Your task to perform on an android device: Open notification settings Image 0: 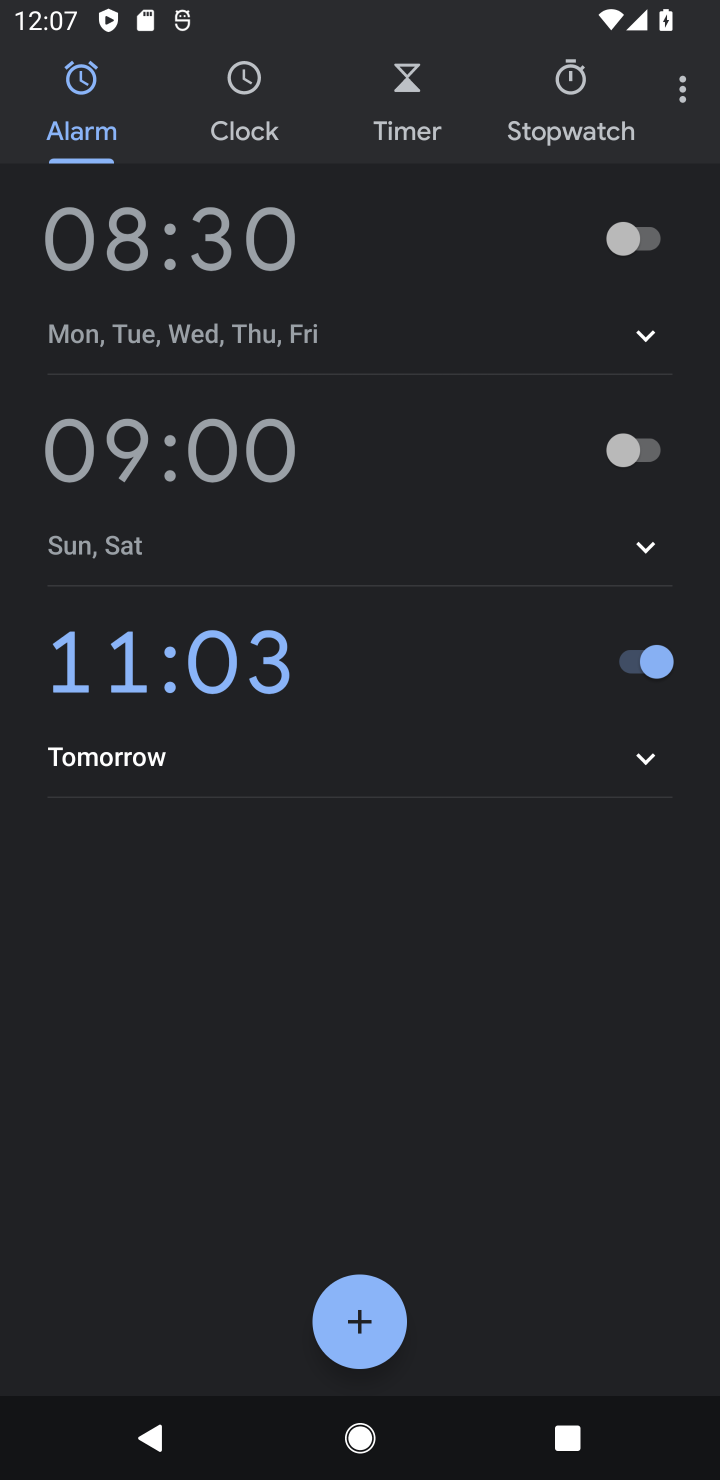
Step 0: press home button
Your task to perform on an android device: Open notification settings Image 1: 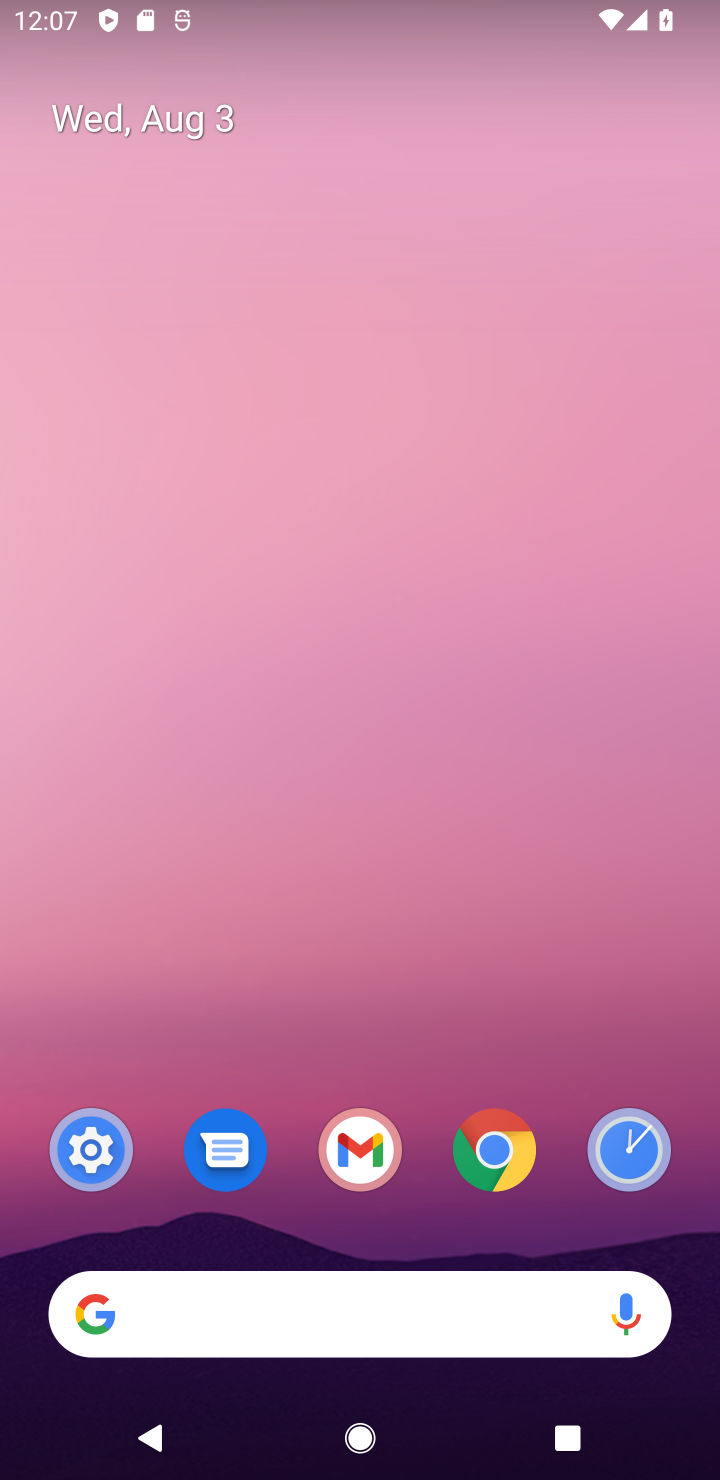
Step 1: drag from (530, 1007) to (536, 321)
Your task to perform on an android device: Open notification settings Image 2: 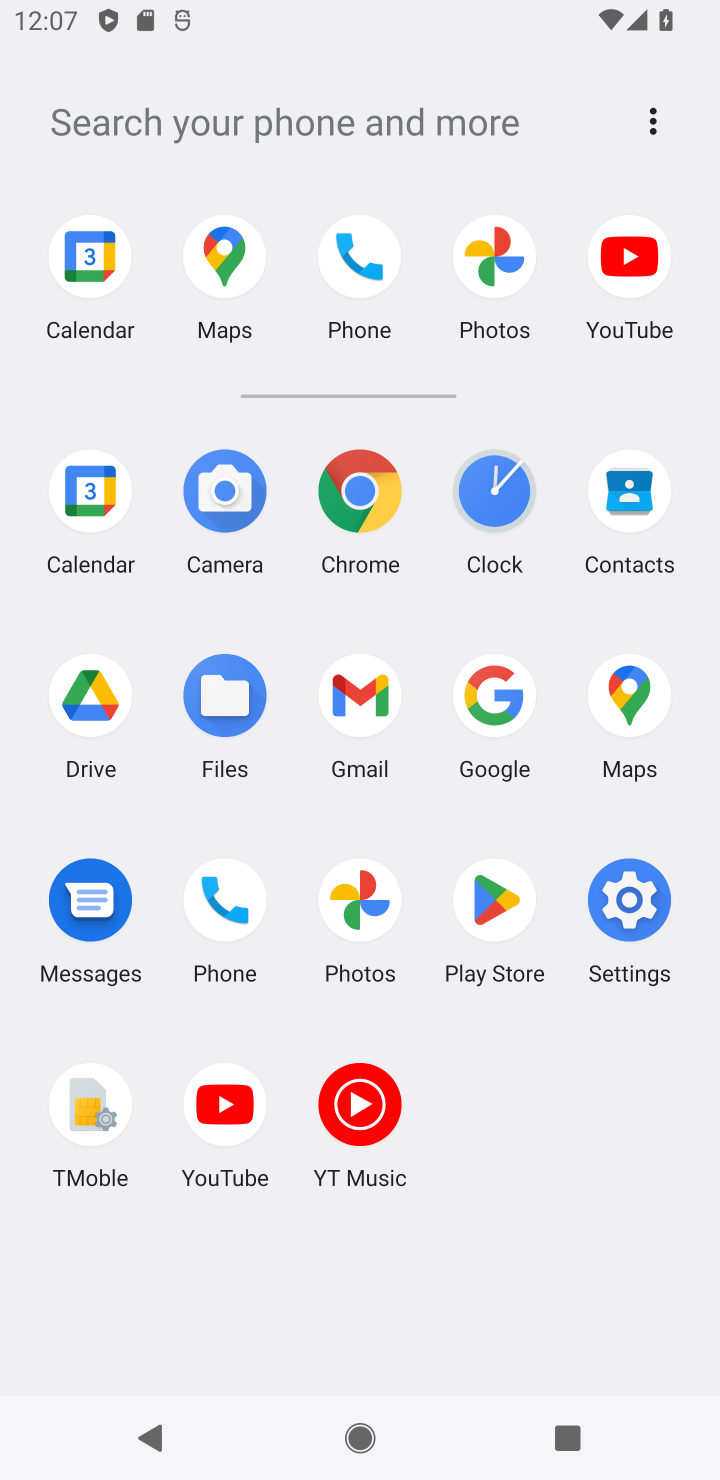
Step 2: click (637, 914)
Your task to perform on an android device: Open notification settings Image 3: 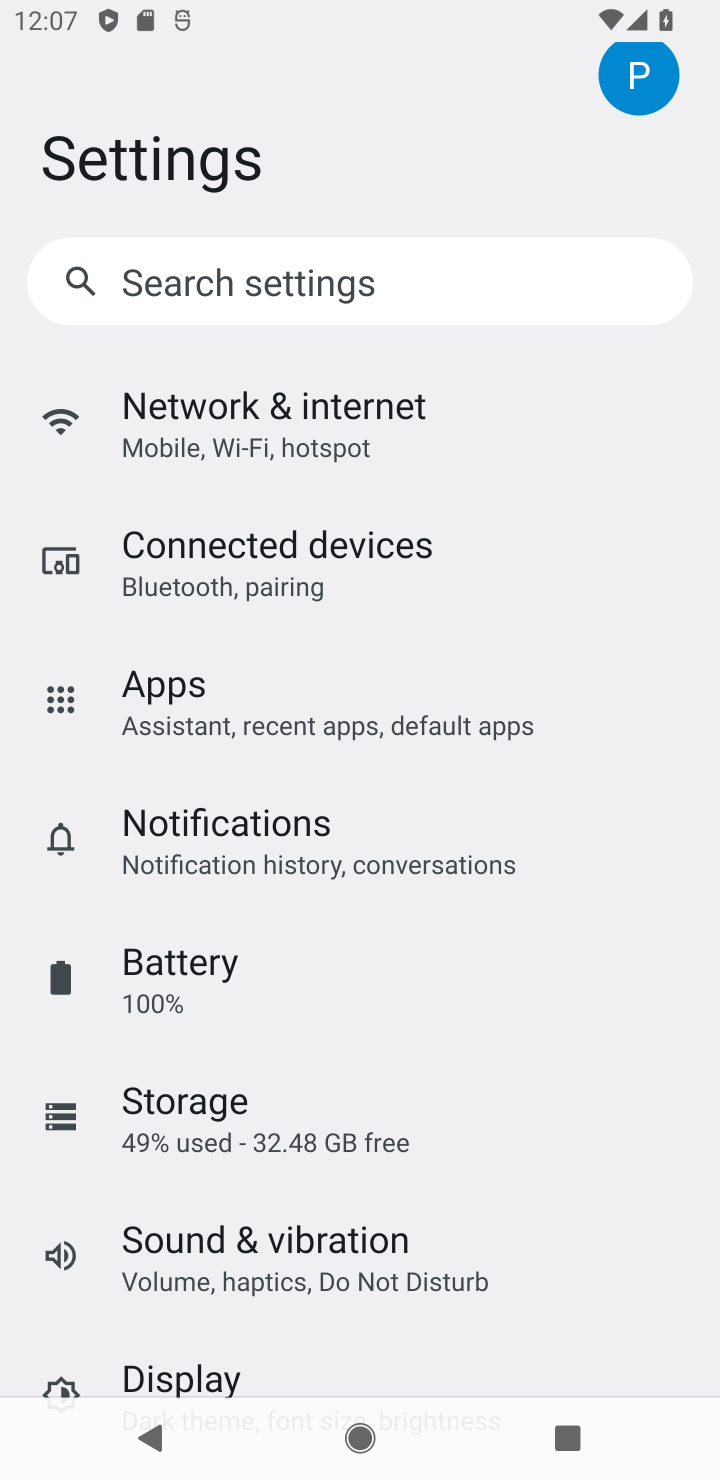
Step 3: drag from (591, 1115) to (574, 894)
Your task to perform on an android device: Open notification settings Image 4: 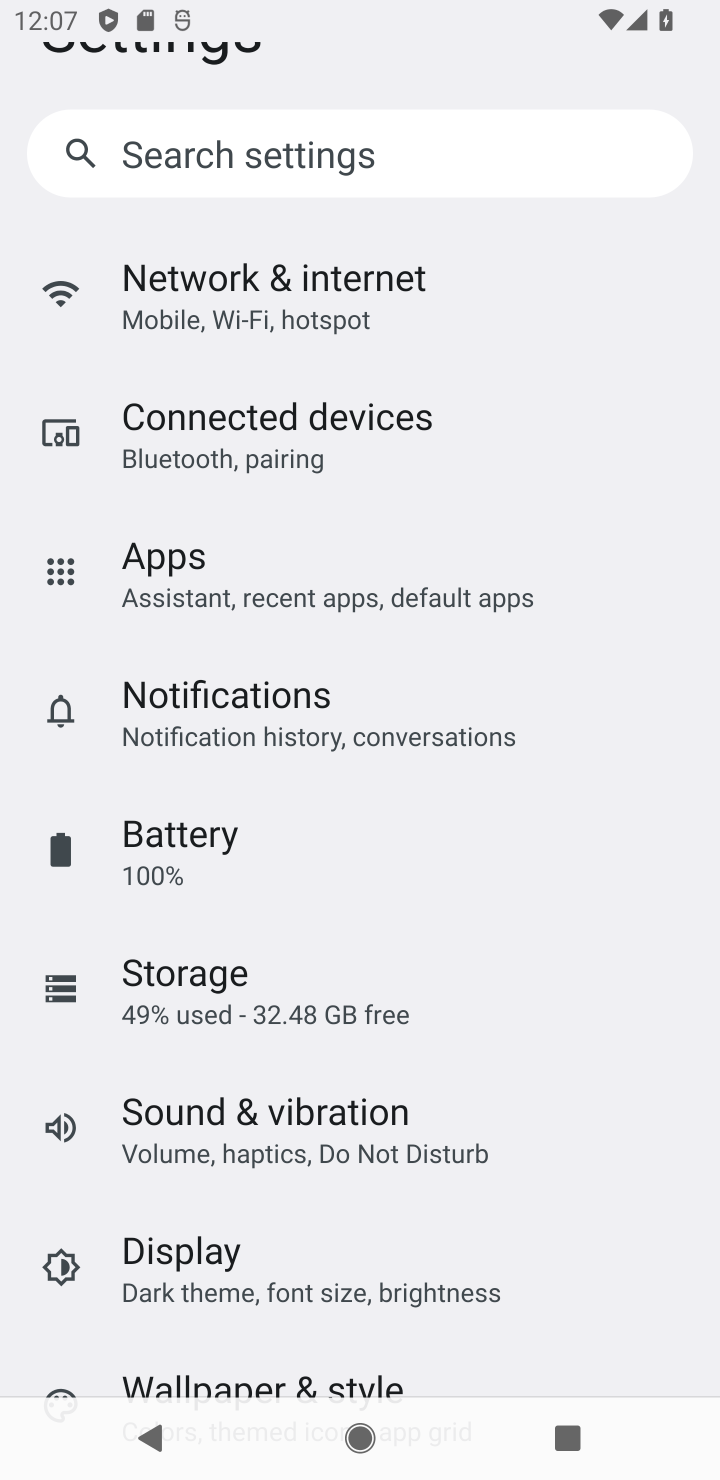
Step 4: drag from (574, 1190) to (592, 911)
Your task to perform on an android device: Open notification settings Image 5: 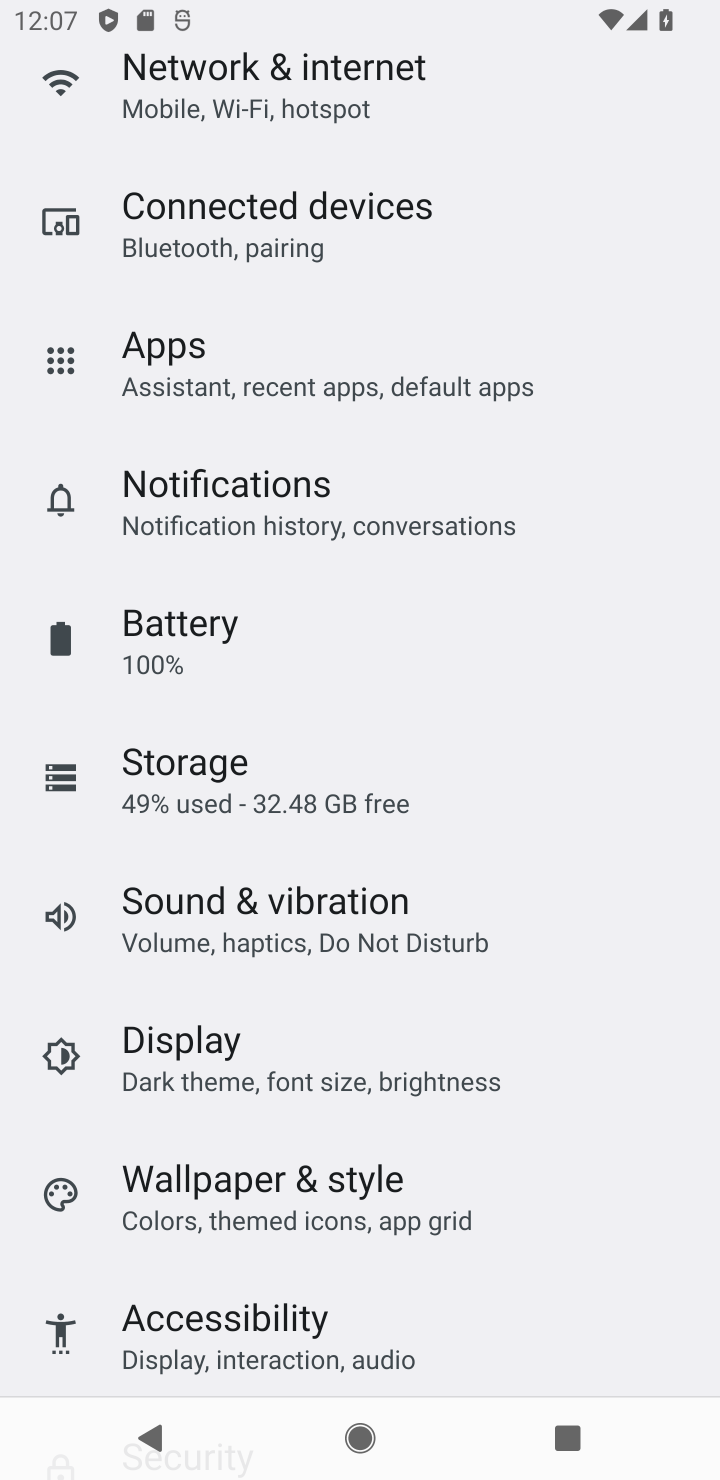
Step 5: drag from (592, 1175) to (613, 894)
Your task to perform on an android device: Open notification settings Image 6: 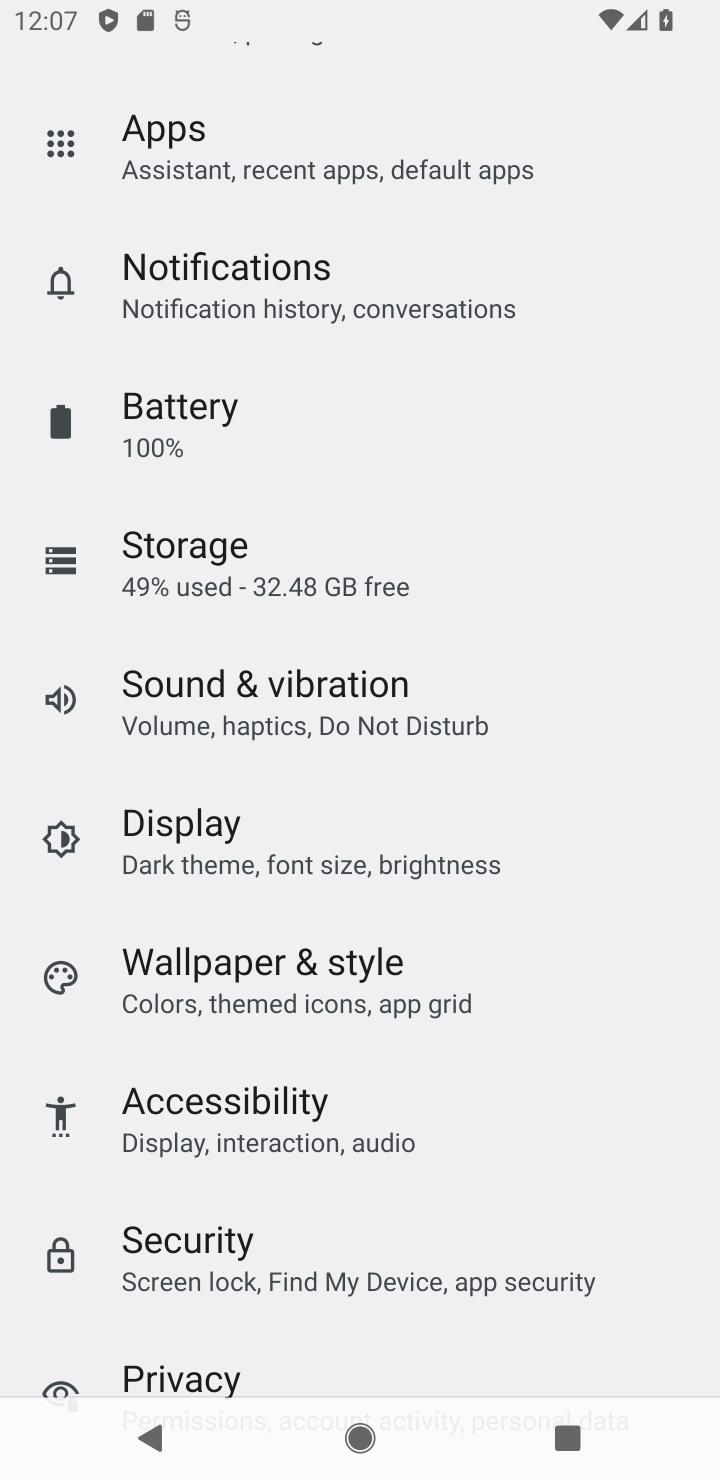
Step 6: drag from (599, 1176) to (575, 893)
Your task to perform on an android device: Open notification settings Image 7: 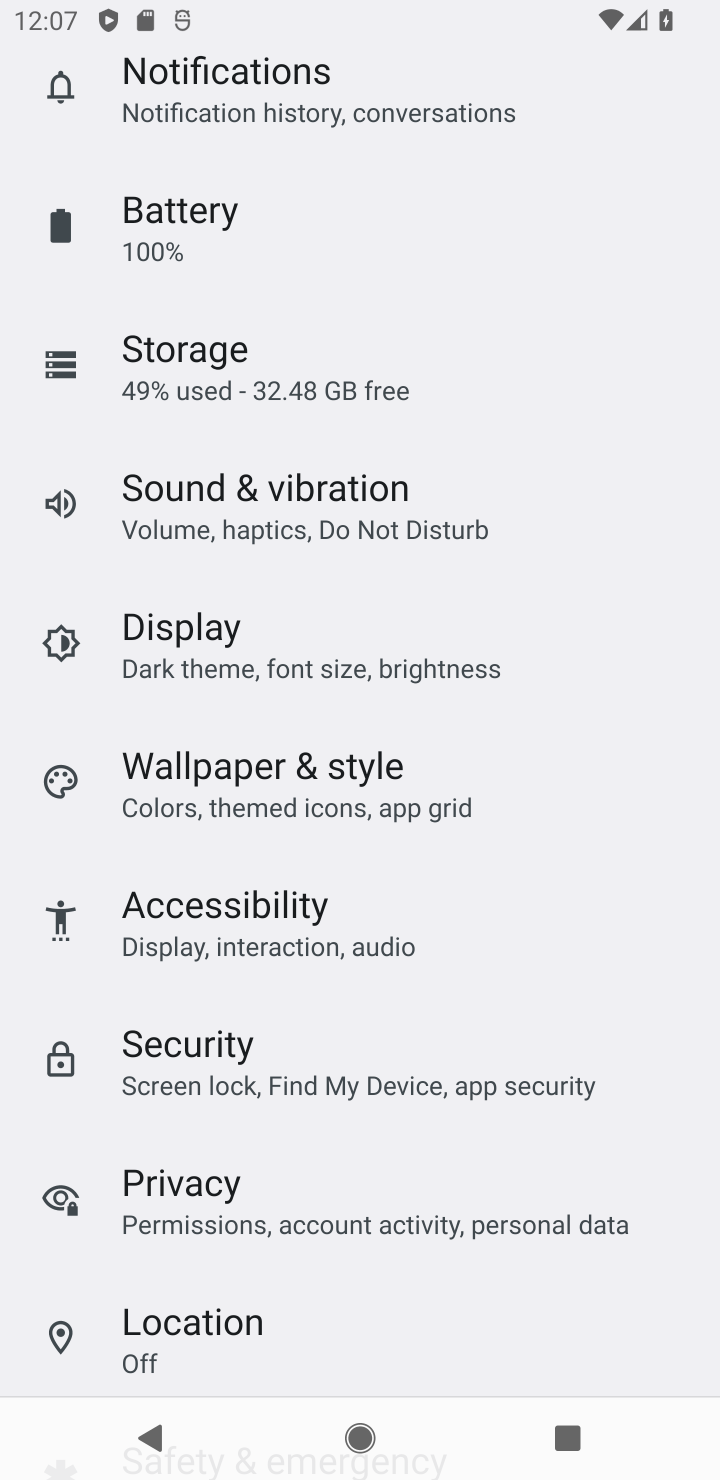
Step 7: drag from (586, 1301) to (582, 905)
Your task to perform on an android device: Open notification settings Image 8: 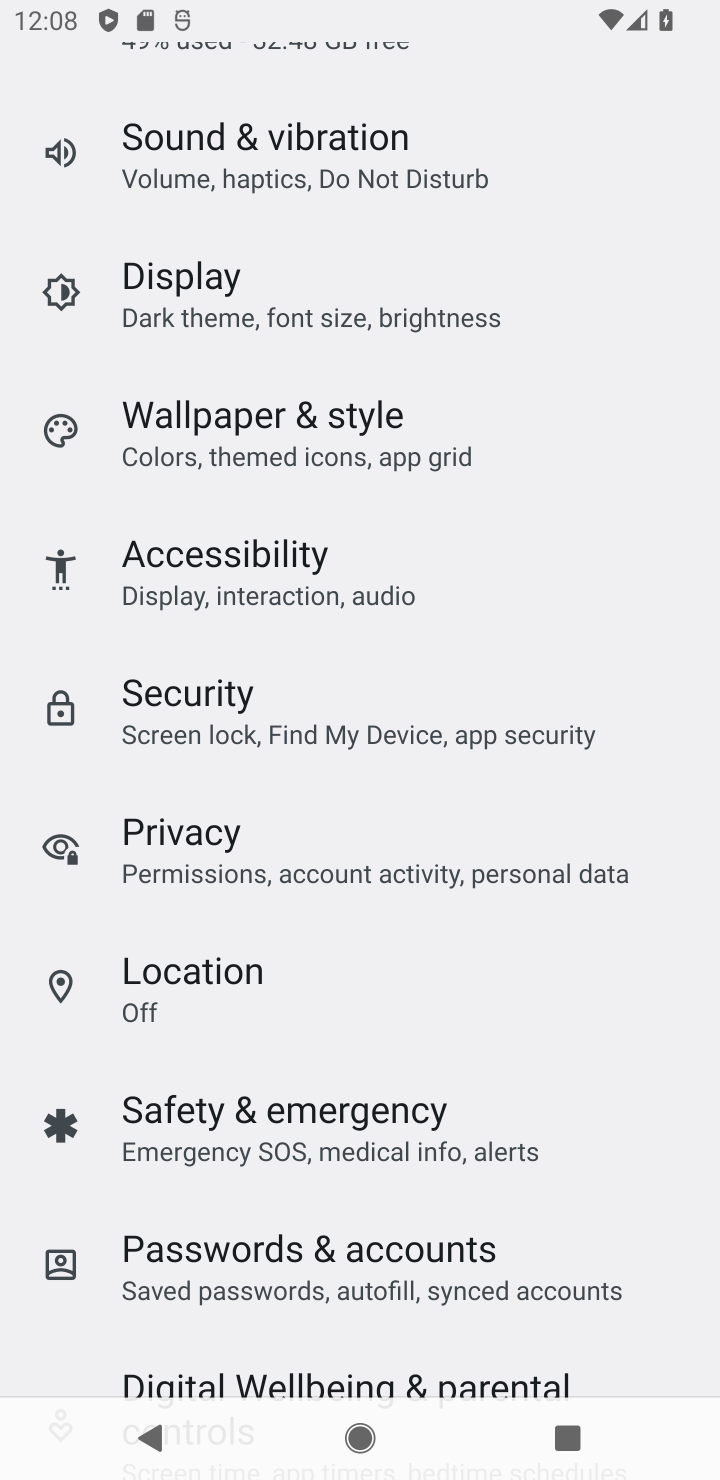
Step 8: drag from (570, 1262) to (581, 868)
Your task to perform on an android device: Open notification settings Image 9: 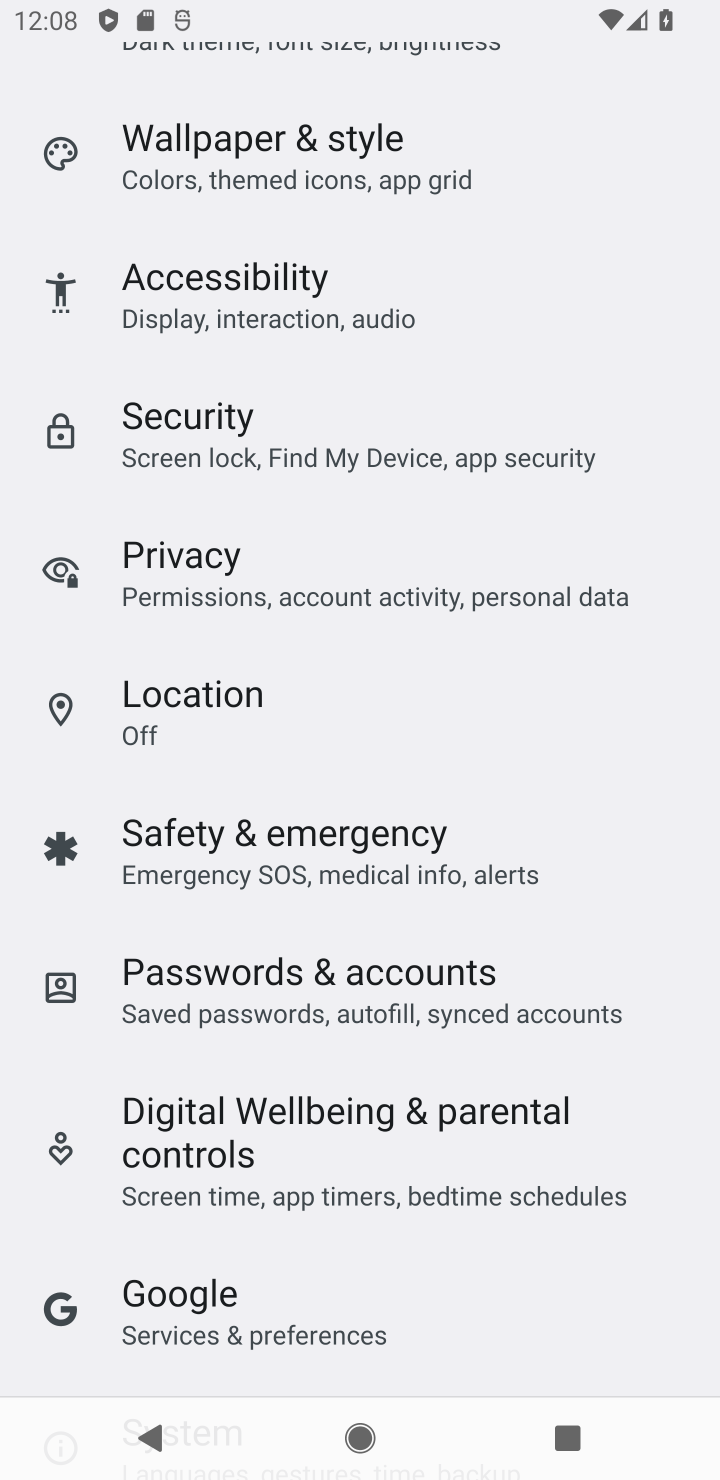
Step 9: drag from (653, 495) to (611, 894)
Your task to perform on an android device: Open notification settings Image 10: 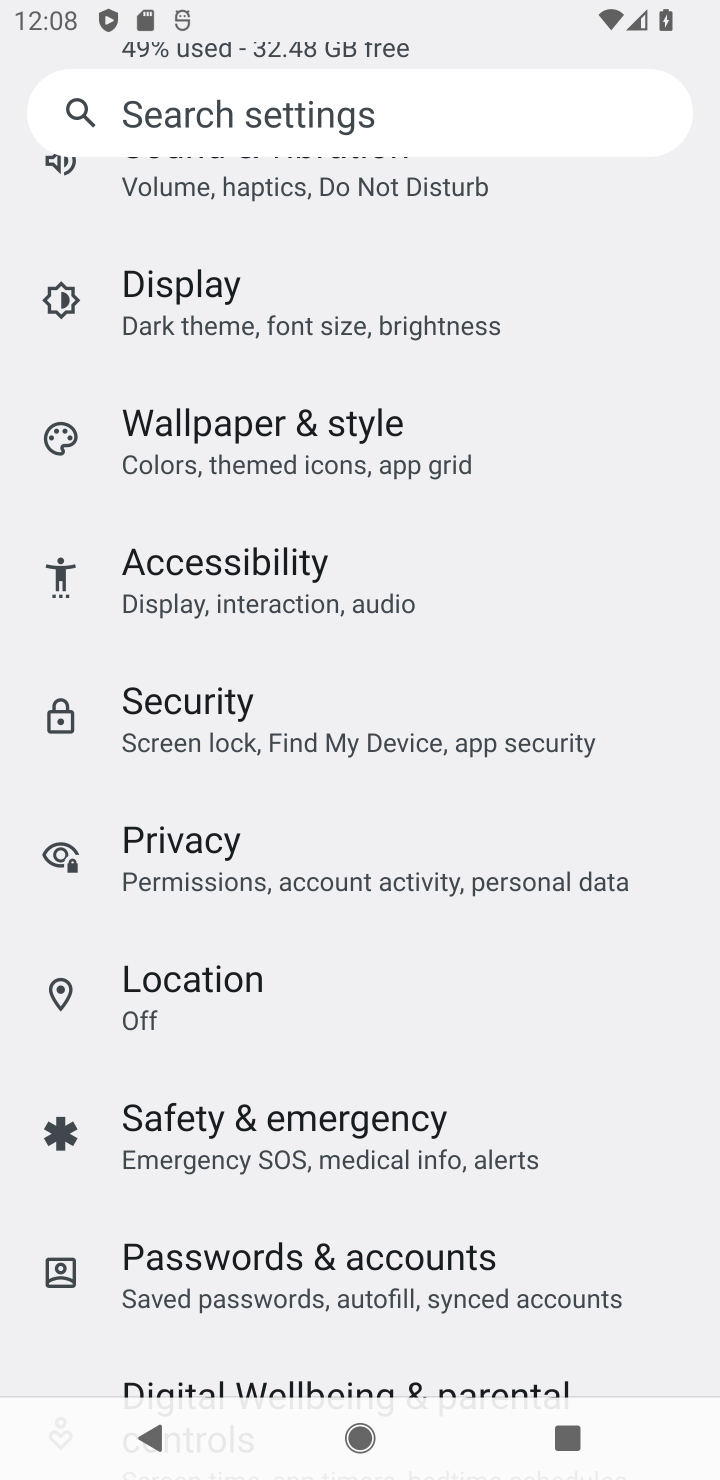
Step 10: drag from (606, 443) to (605, 915)
Your task to perform on an android device: Open notification settings Image 11: 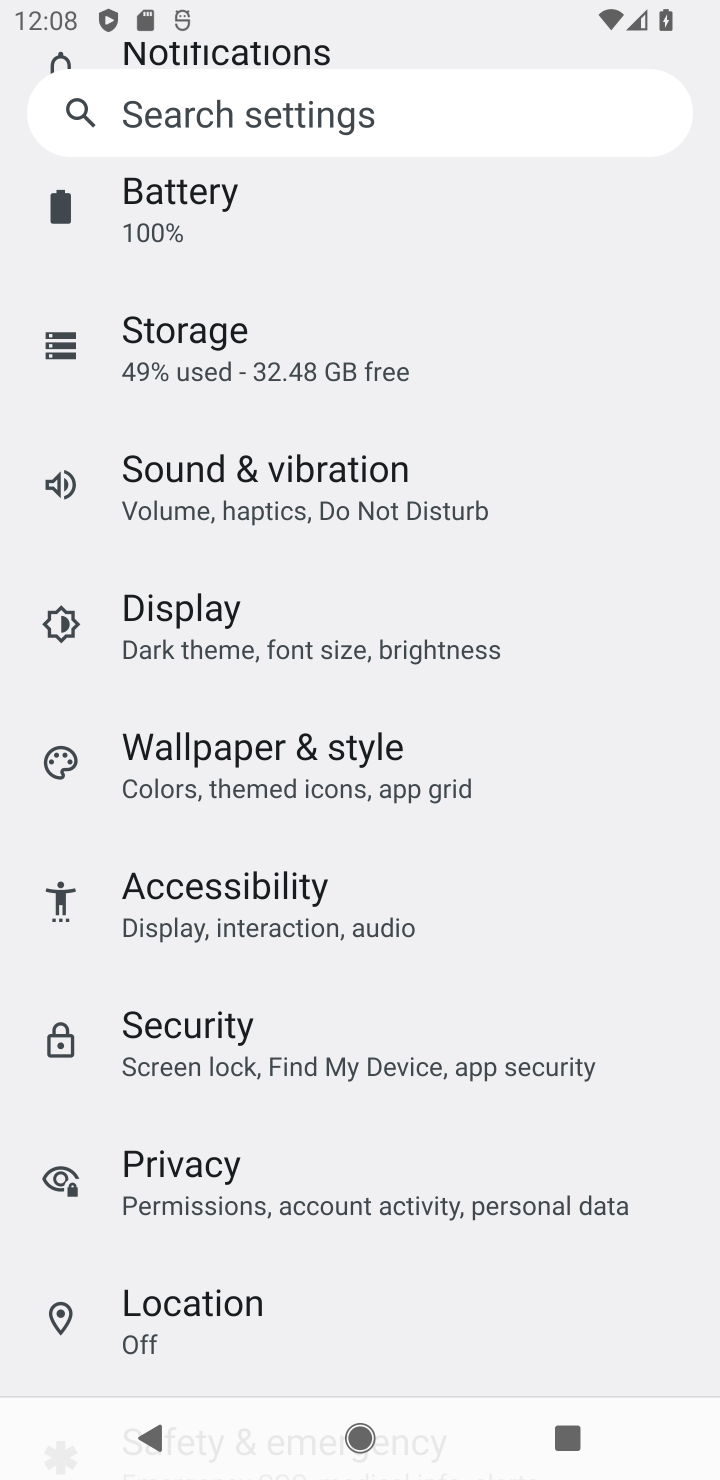
Step 11: drag from (581, 464) to (579, 923)
Your task to perform on an android device: Open notification settings Image 12: 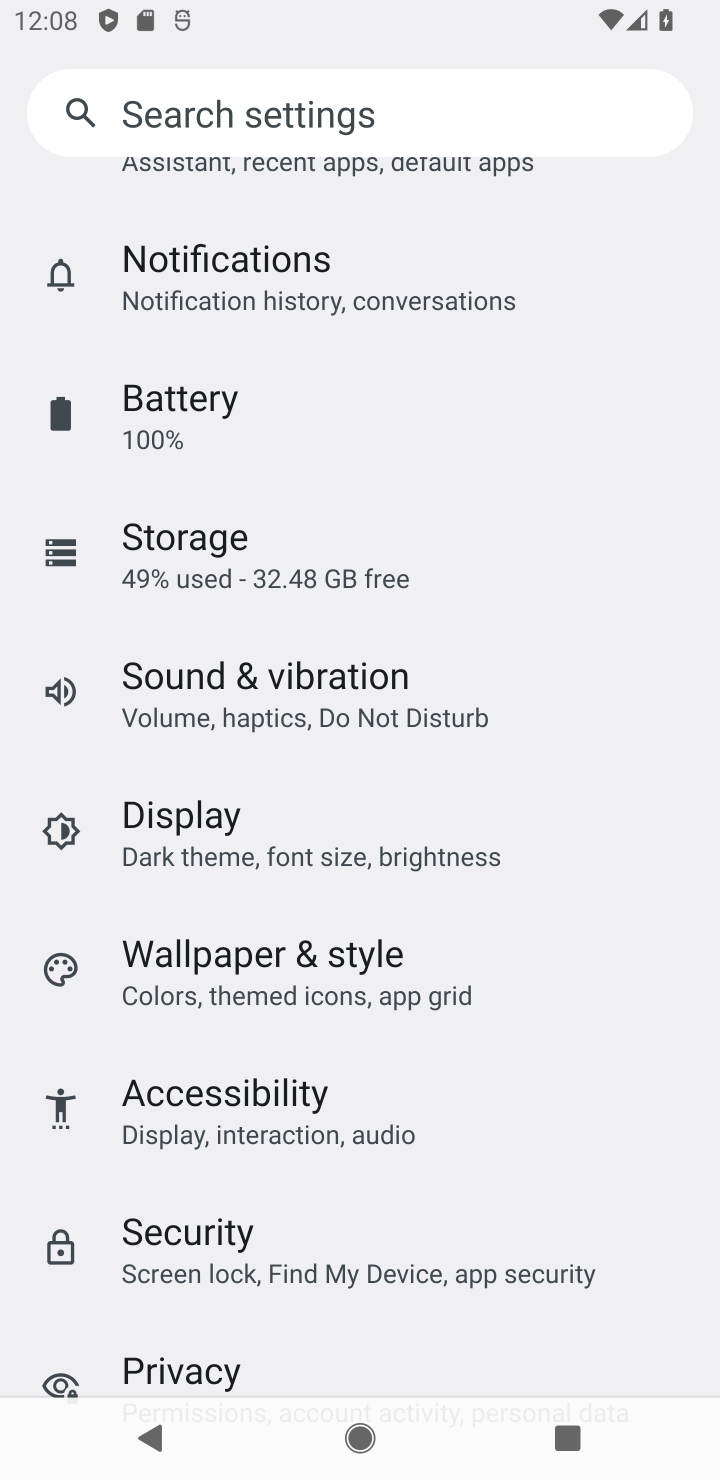
Step 12: drag from (567, 465) to (555, 945)
Your task to perform on an android device: Open notification settings Image 13: 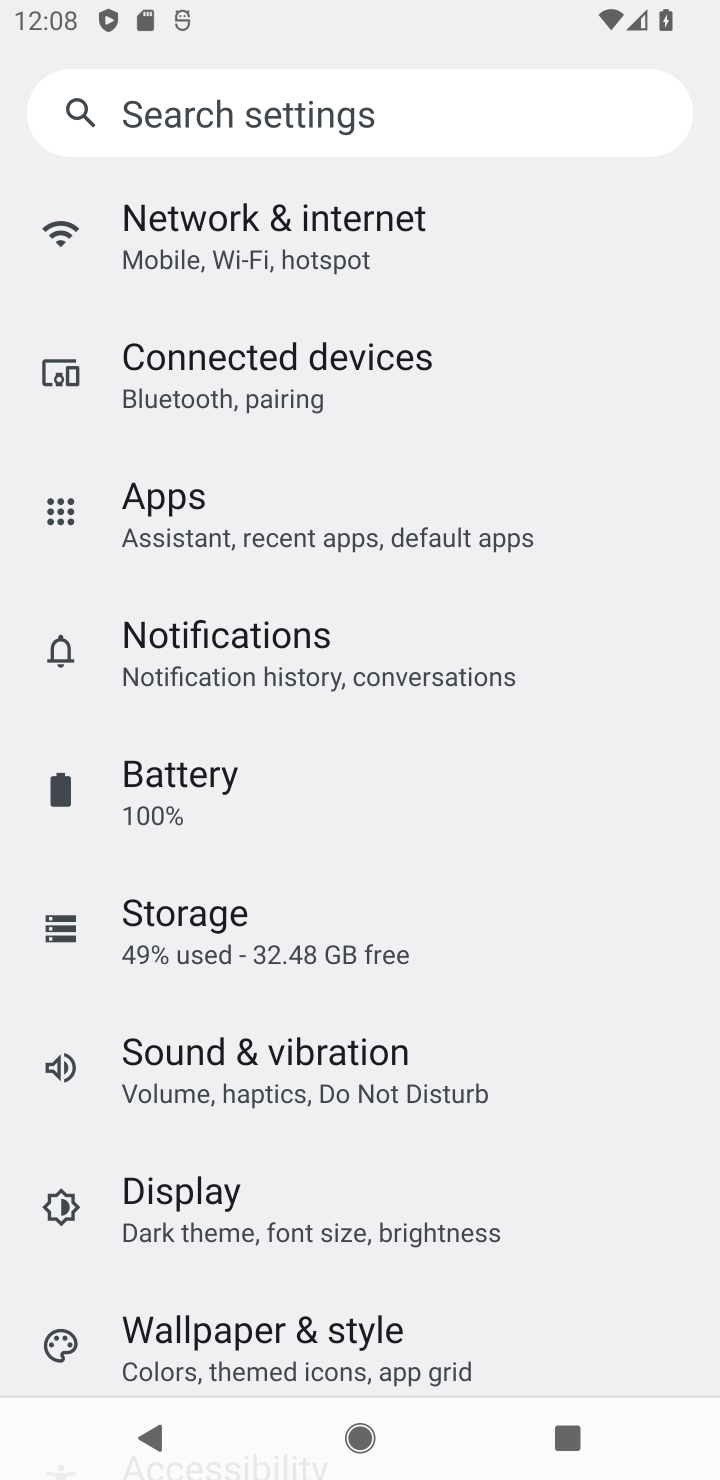
Step 13: click (451, 639)
Your task to perform on an android device: Open notification settings Image 14: 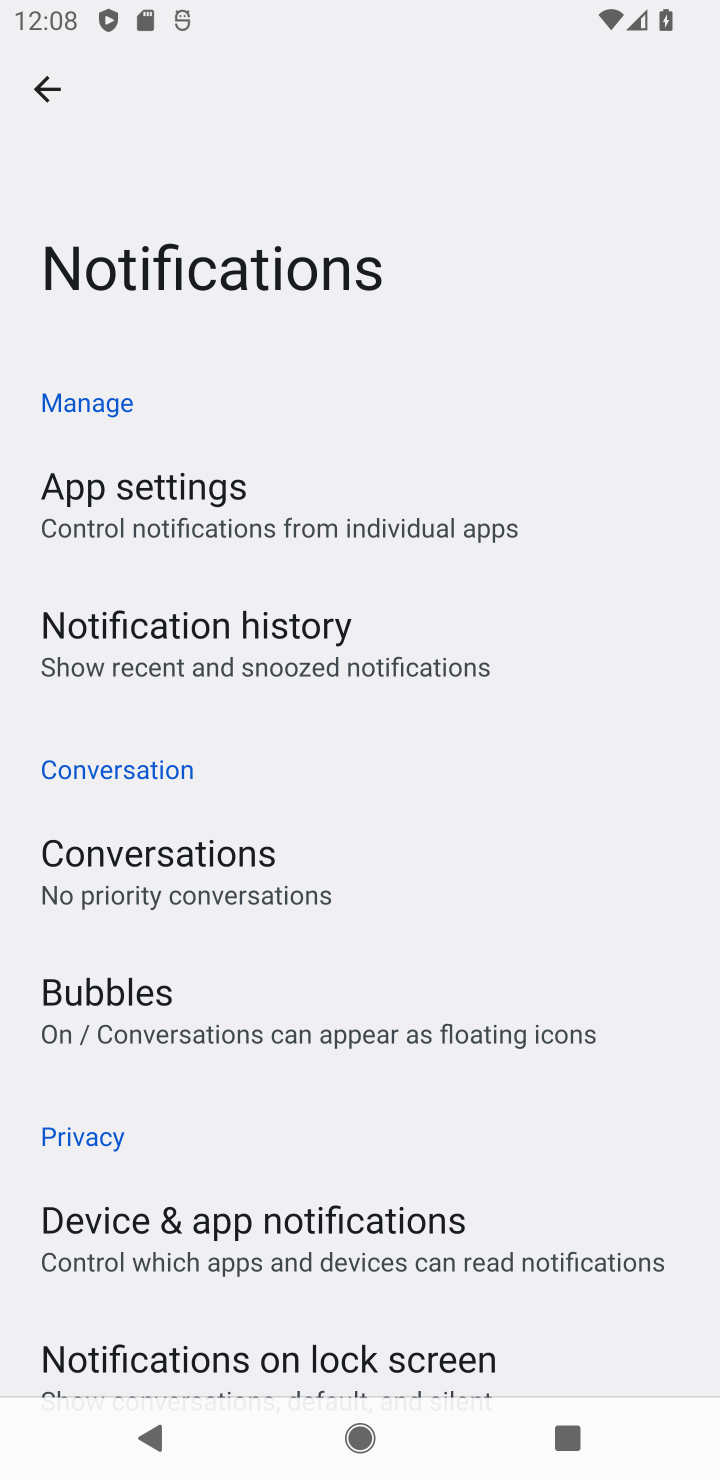
Step 14: task complete